Your task to perform on an android device: Search for seafood restaurants on Google Maps Image 0: 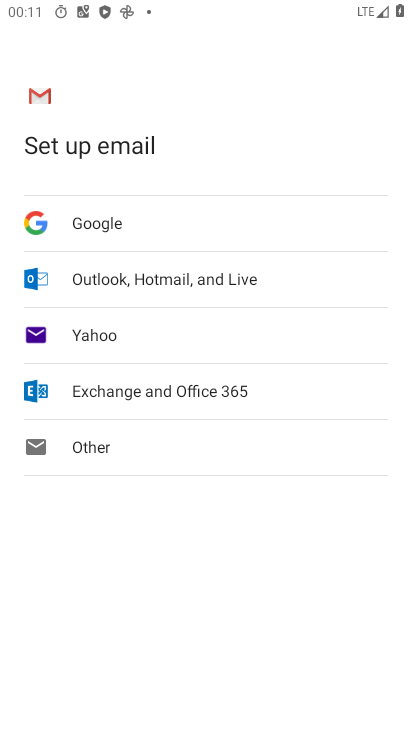
Step 0: press home button
Your task to perform on an android device: Search for seafood restaurants on Google Maps Image 1: 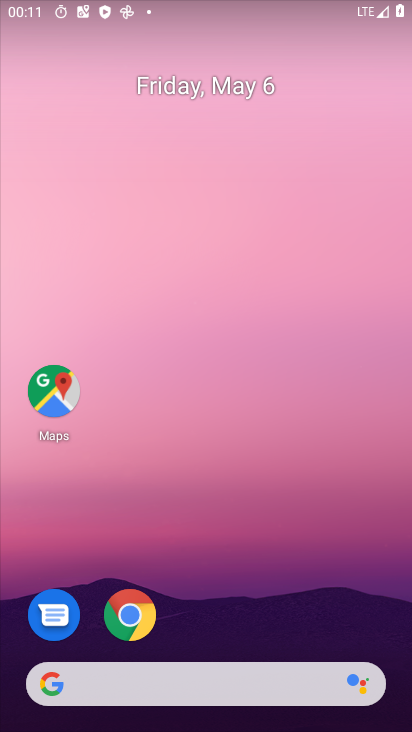
Step 1: click (53, 386)
Your task to perform on an android device: Search for seafood restaurants on Google Maps Image 2: 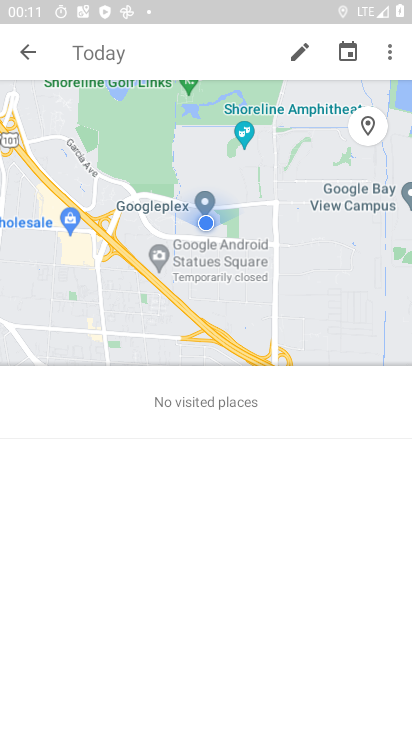
Step 2: press back button
Your task to perform on an android device: Search for seafood restaurants on Google Maps Image 3: 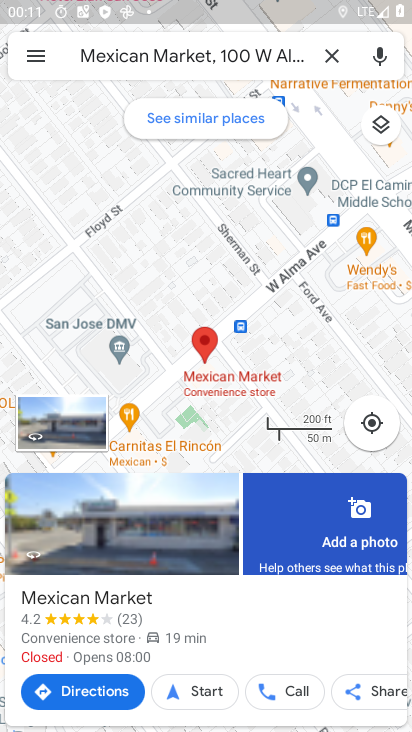
Step 3: click (322, 55)
Your task to perform on an android device: Search for seafood restaurants on Google Maps Image 4: 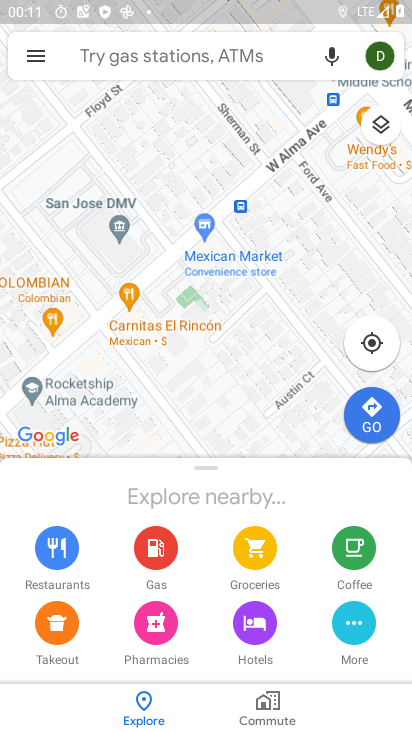
Step 4: click (204, 61)
Your task to perform on an android device: Search for seafood restaurants on Google Maps Image 5: 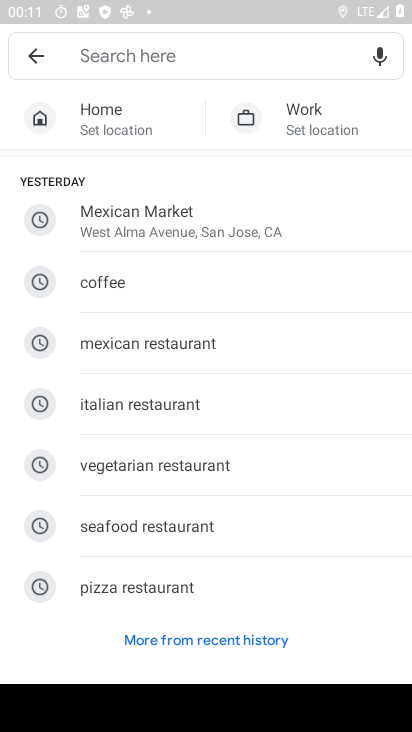
Step 5: click (165, 528)
Your task to perform on an android device: Search for seafood restaurants on Google Maps Image 6: 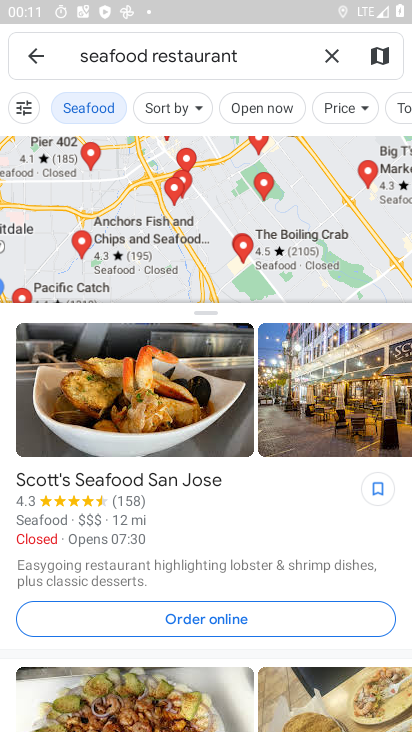
Step 6: task complete